Your task to perform on an android device: make emails show in primary in the gmail app Image 0: 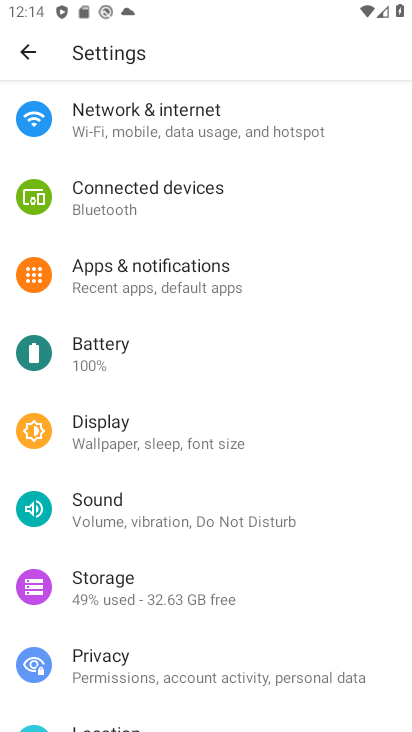
Step 0: press back button
Your task to perform on an android device: make emails show in primary in the gmail app Image 1: 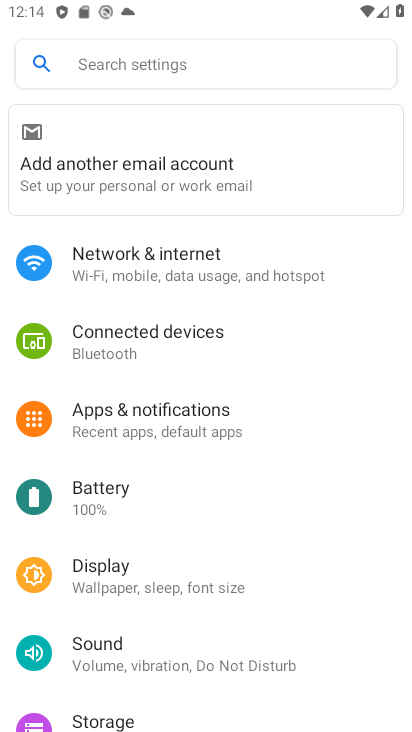
Step 1: press back button
Your task to perform on an android device: make emails show in primary in the gmail app Image 2: 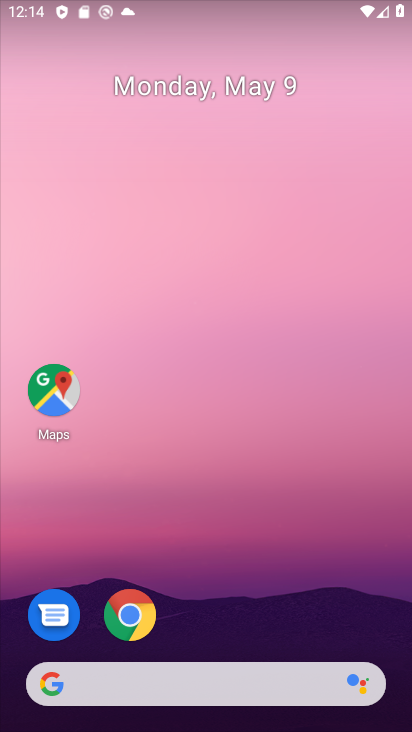
Step 2: drag from (181, 503) to (193, 38)
Your task to perform on an android device: make emails show in primary in the gmail app Image 3: 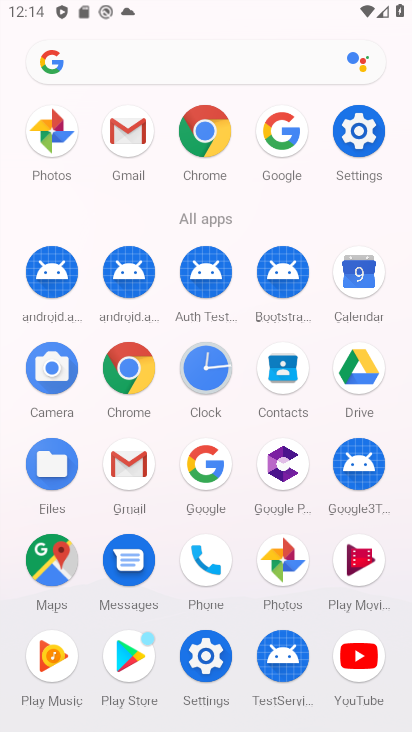
Step 3: click (127, 134)
Your task to perform on an android device: make emails show in primary in the gmail app Image 4: 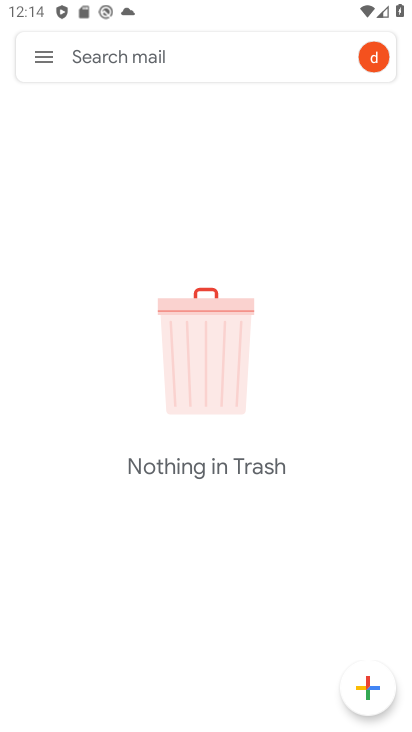
Step 4: click (39, 55)
Your task to perform on an android device: make emails show in primary in the gmail app Image 5: 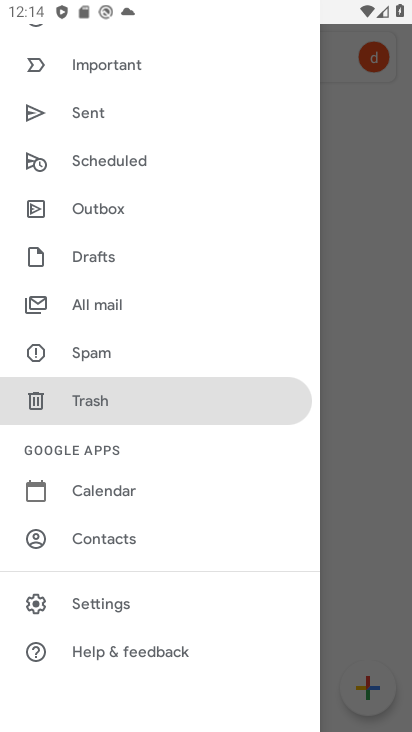
Step 5: drag from (207, 300) to (199, 391)
Your task to perform on an android device: make emails show in primary in the gmail app Image 6: 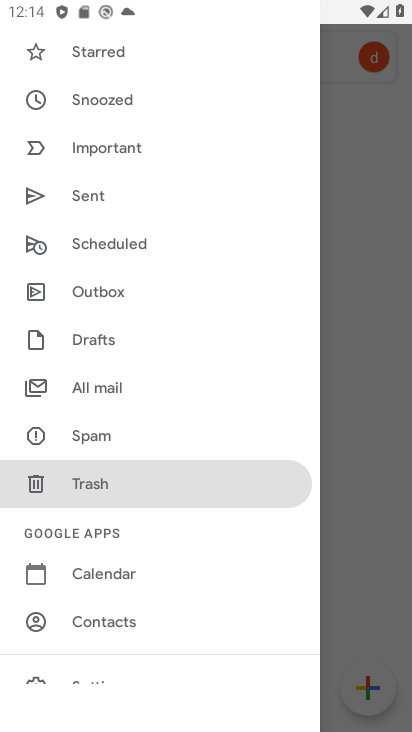
Step 6: drag from (190, 253) to (174, 358)
Your task to perform on an android device: make emails show in primary in the gmail app Image 7: 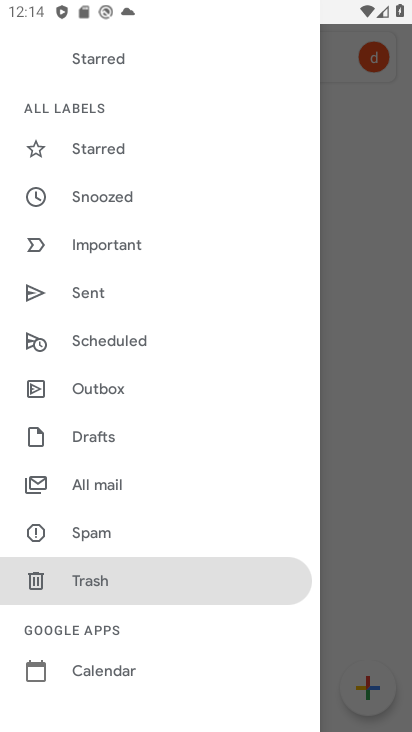
Step 7: drag from (137, 457) to (210, 162)
Your task to perform on an android device: make emails show in primary in the gmail app Image 8: 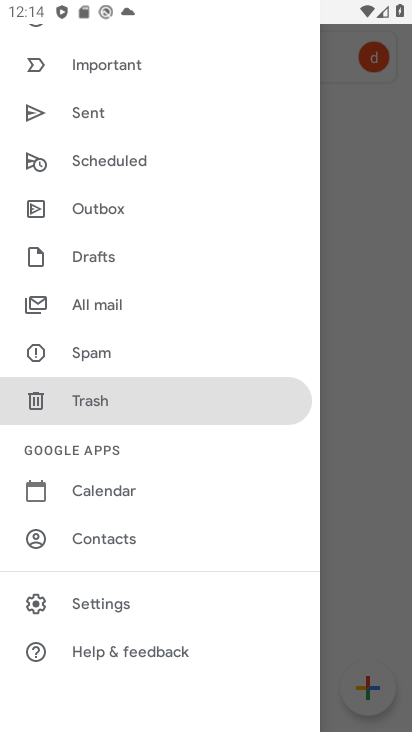
Step 8: click (101, 603)
Your task to perform on an android device: make emails show in primary in the gmail app Image 9: 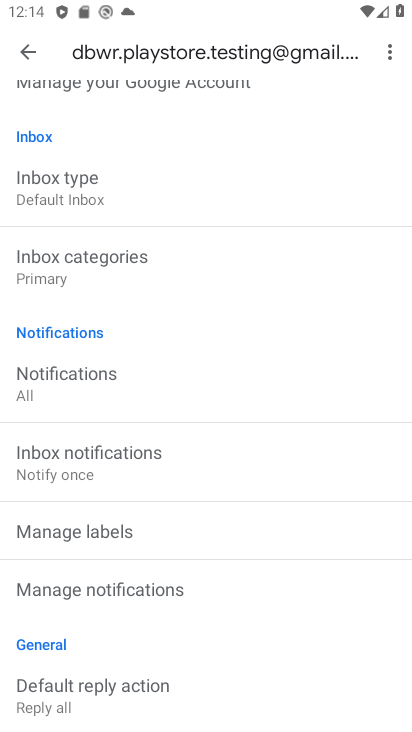
Step 9: drag from (192, 326) to (182, 395)
Your task to perform on an android device: make emails show in primary in the gmail app Image 10: 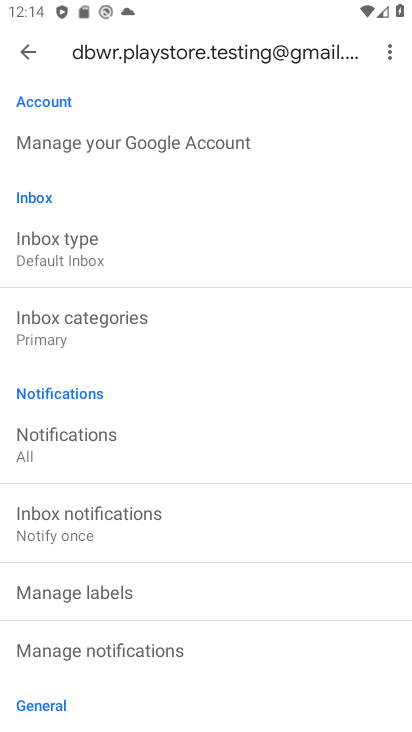
Step 10: click (109, 321)
Your task to perform on an android device: make emails show in primary in the gmail app Image 11: 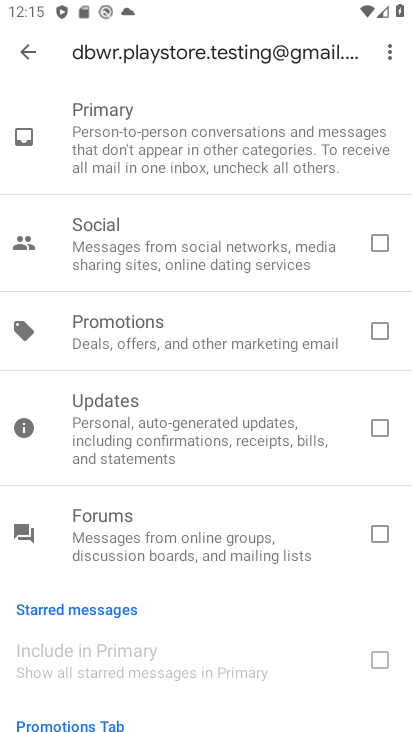
Step 11: task complete